Your task to perform on an android device: clear all cookies in the chrome app Image 0: 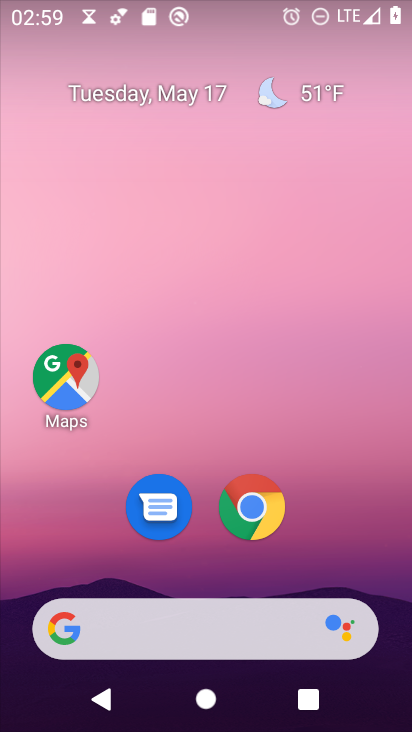
Step 0: click (256, 505)
Your task to perform on an android device: clear all cookies in the chrome app Image 1: 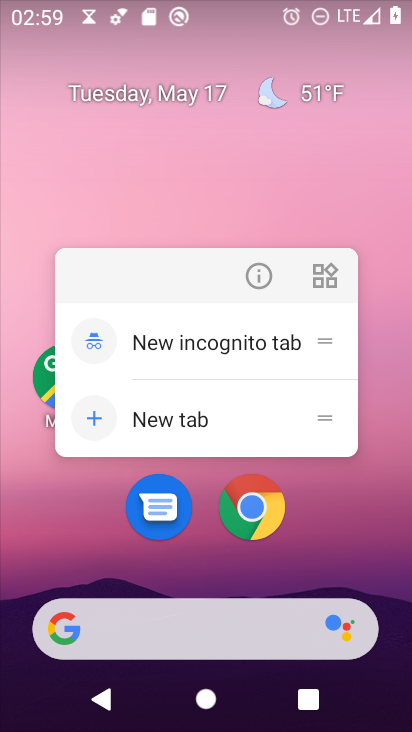
Step 1: click (258, 505)
Your task to perform on an android device: clear all cookies in the chrome app Image 2: 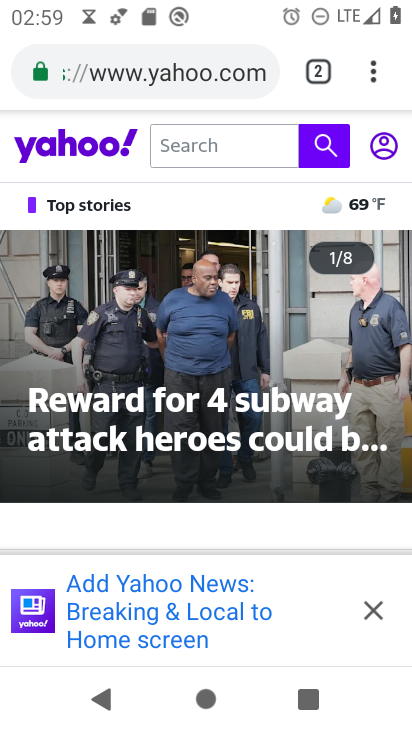
Step 2: click (365, 71)
Your task to perform on an android device: clear all cookies in the chrome app Image 3: 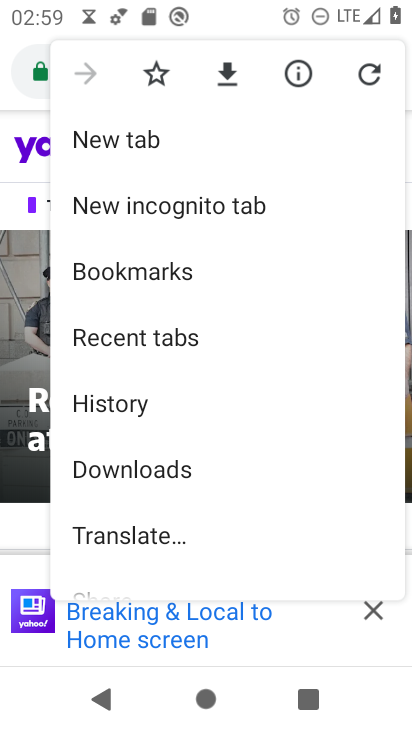
Step 3: click (169, 411)
Your task to perform on an android device: clear all cookies in the chrome app Image 4: 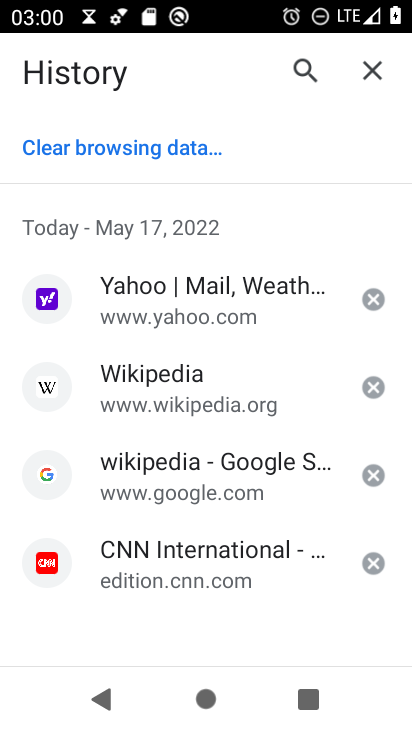
Step 4: click (91, 161)
Your task to perform on an android device: clear all cookies in the chrome app Image 5: 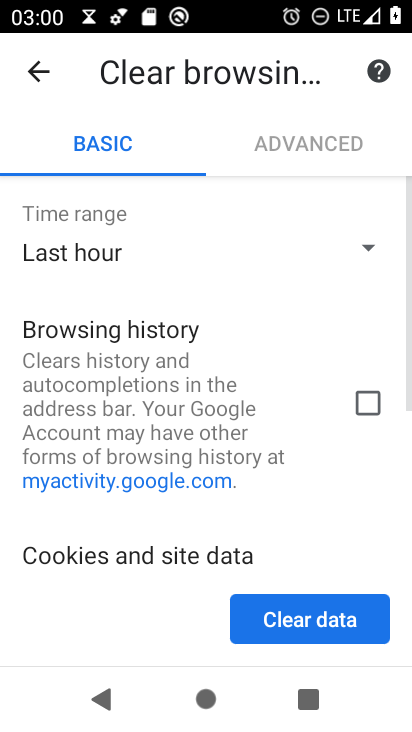
Step 5: drag from (271, 482) to (273, 125)
Your task to perform on an android device: clear all cookies in the chrome app Image 6: 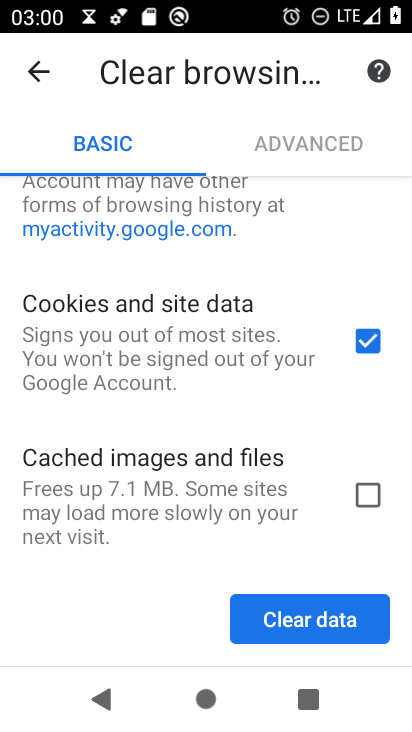
Step 6: click (246, 627)
Your task to perform on an android device: clear all cookies in the chrome app Image 7: 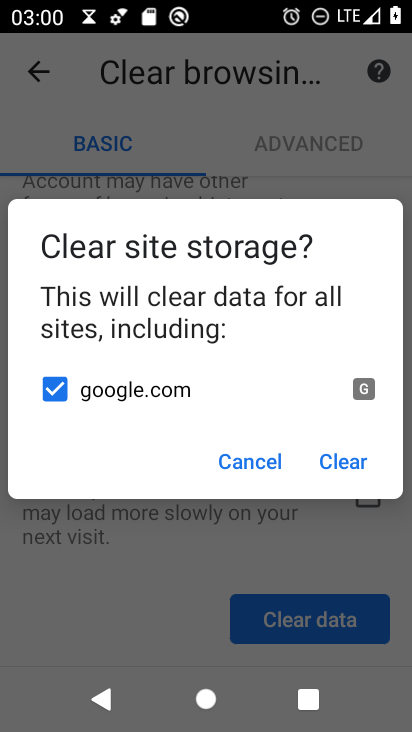
Step 7: click (362, 453)
Your task to perform on an android device: clear all cookies in the chrome app Image 8: 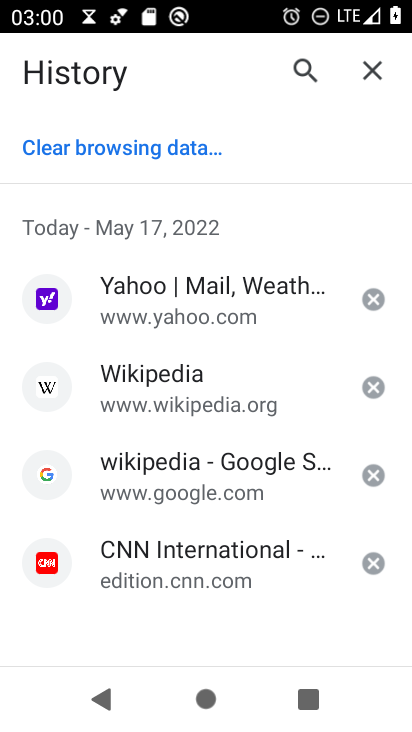
Step 8: task complete